Your task to perform on an android device: set an alarm Image 0: 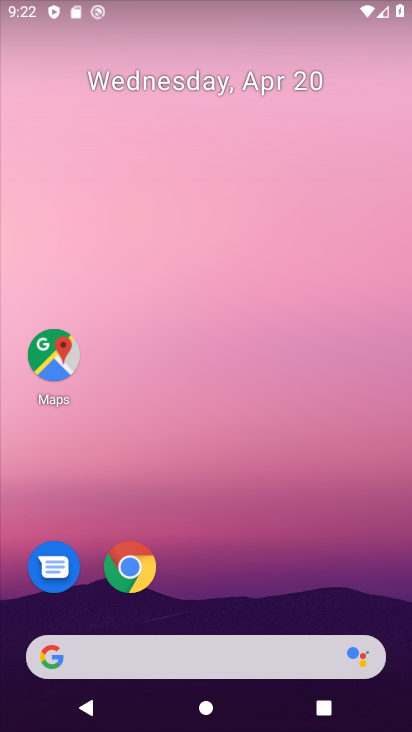
Step 0: drag from (340, 565) to (360, 166)
Your task to perform on an android device: set an alarm Image 1: 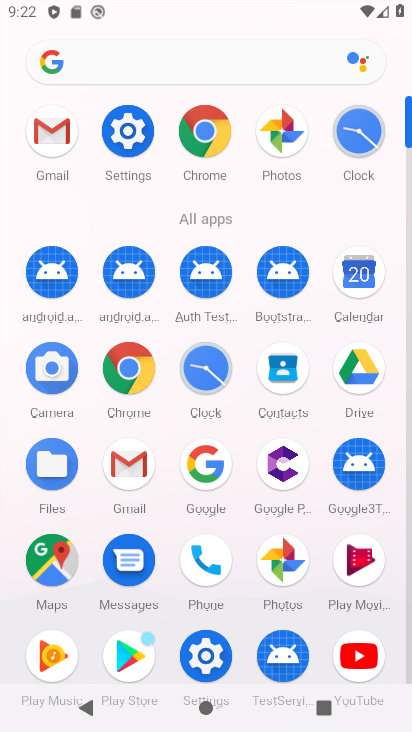
Step 1: click (207, 380)
Your task to perform on an android device: set an alarm Image 2: 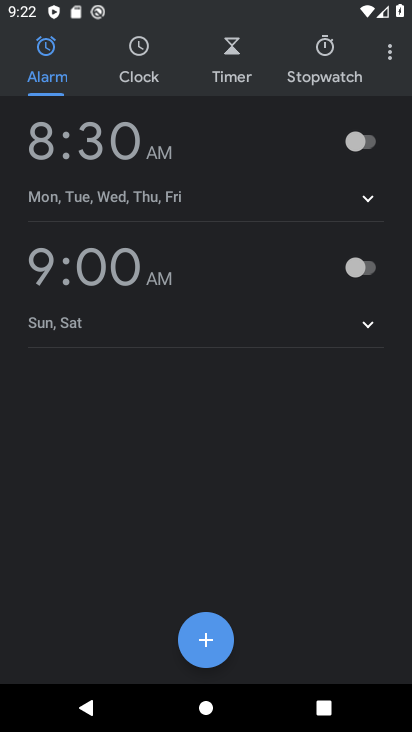
Step 2: click (207, 633)
Your task to perform on an android device: set an alarm Image 3: 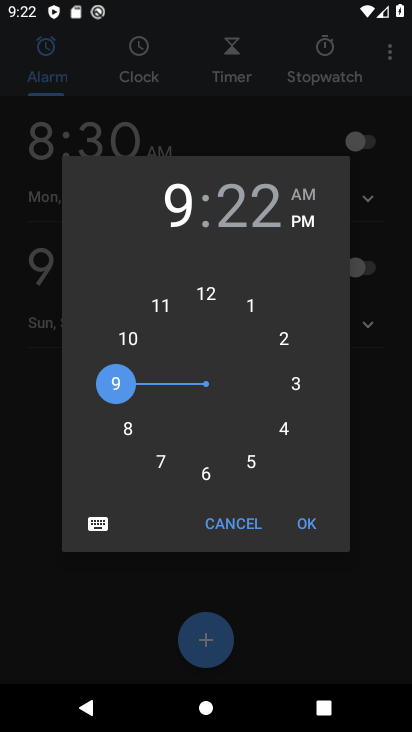
Step 3: click (306, 525)
Your task to perform on an android device: set an alarm Image 4: 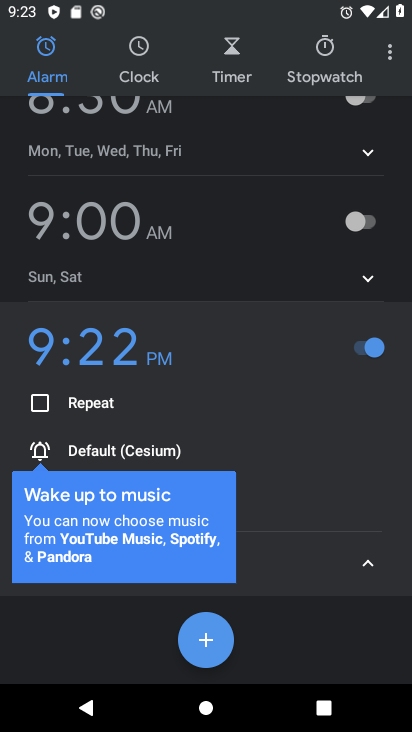
Step 4: task complete